Your task to perform on an android device: Open Maps and search for coffee Image 0: 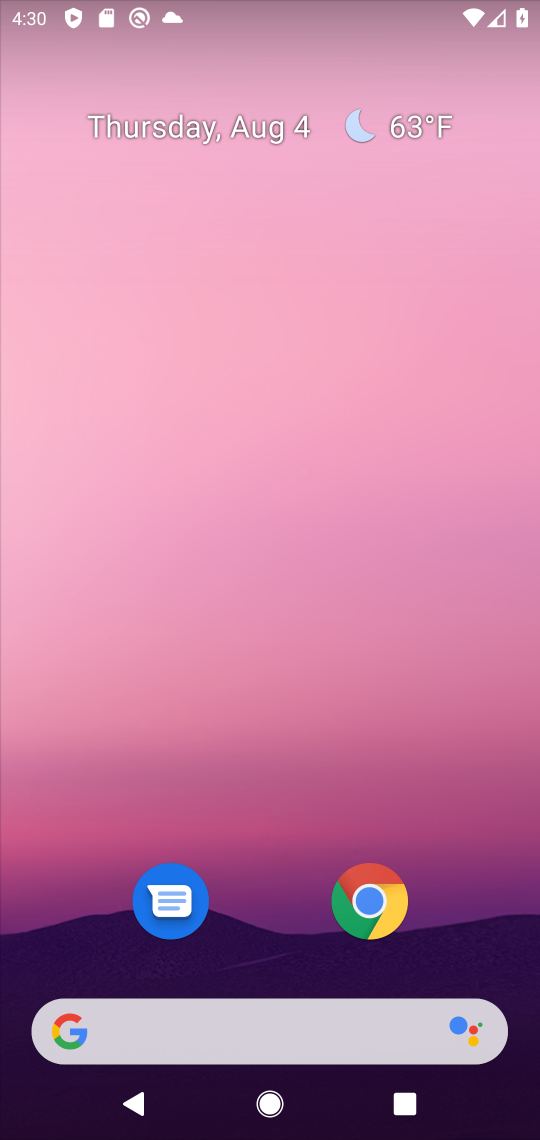
Step 0: drag from (262, 851) to (259, 398)
Your task to perform on an android device: Open Maps and search for coffee Image 1: 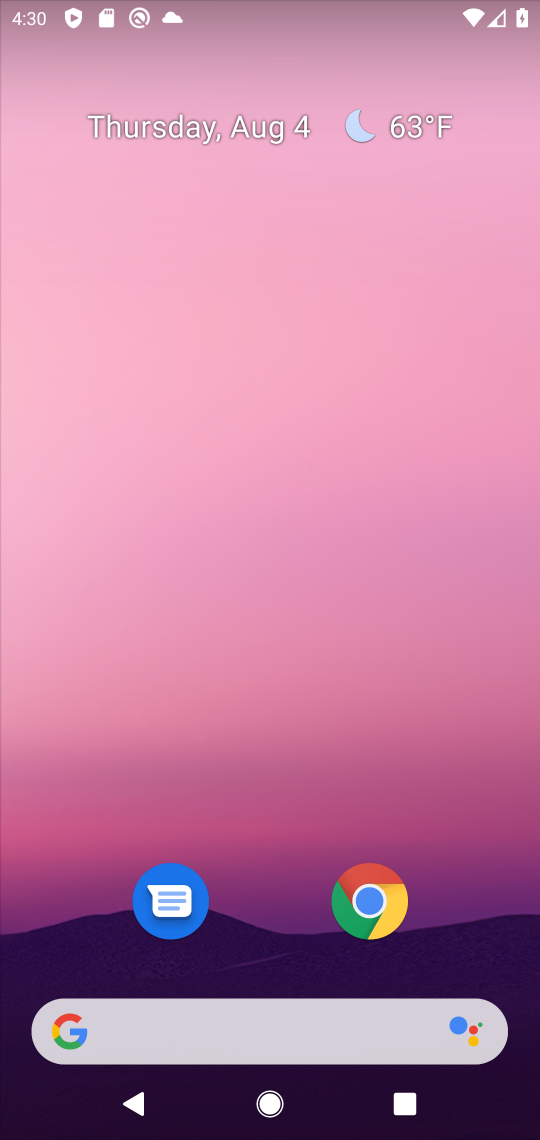
Step 1: drag from (265, 837) to (301, 261)
Your task to perform on an android device: Open Maps and search for coffee Image 2: 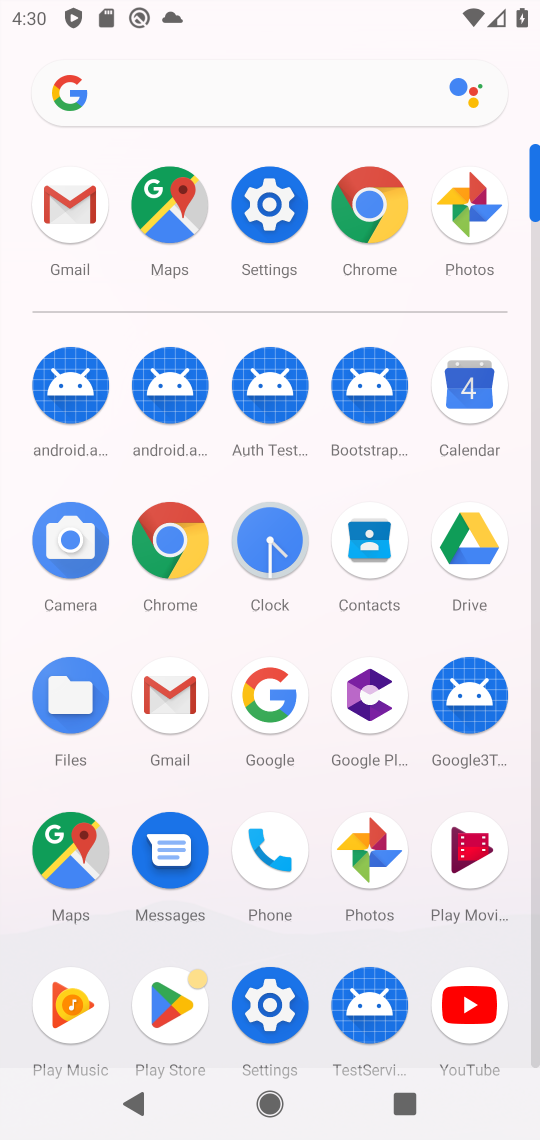
Step 2: click (166, 191)
Your task to perform on an android device: Open Maps and search for coffee Image 3: 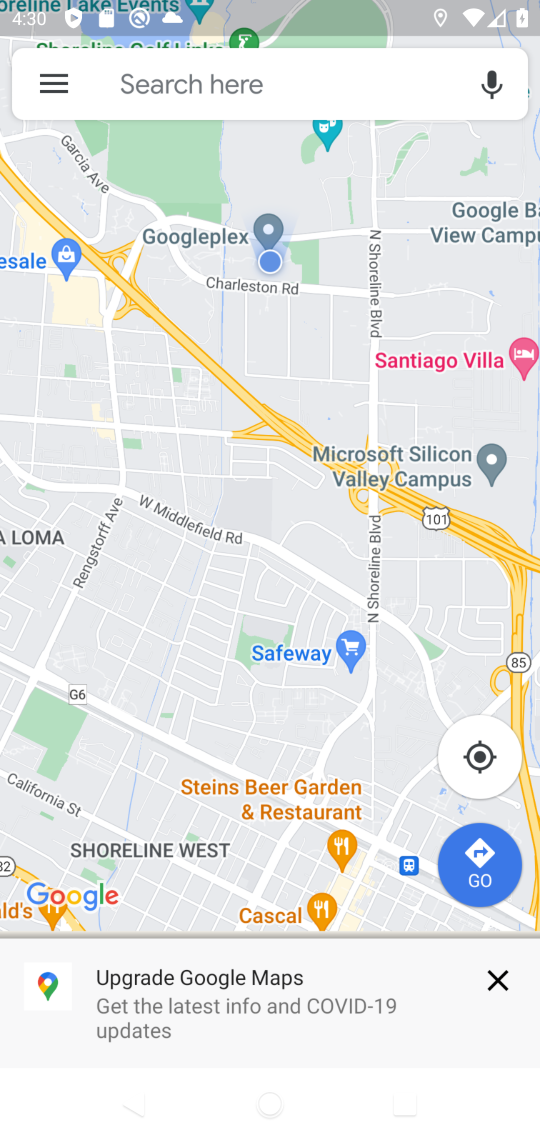
Step 3: click (229, 67)
Your task to perform on an android device: Open Maps and search for coffee Image 4: 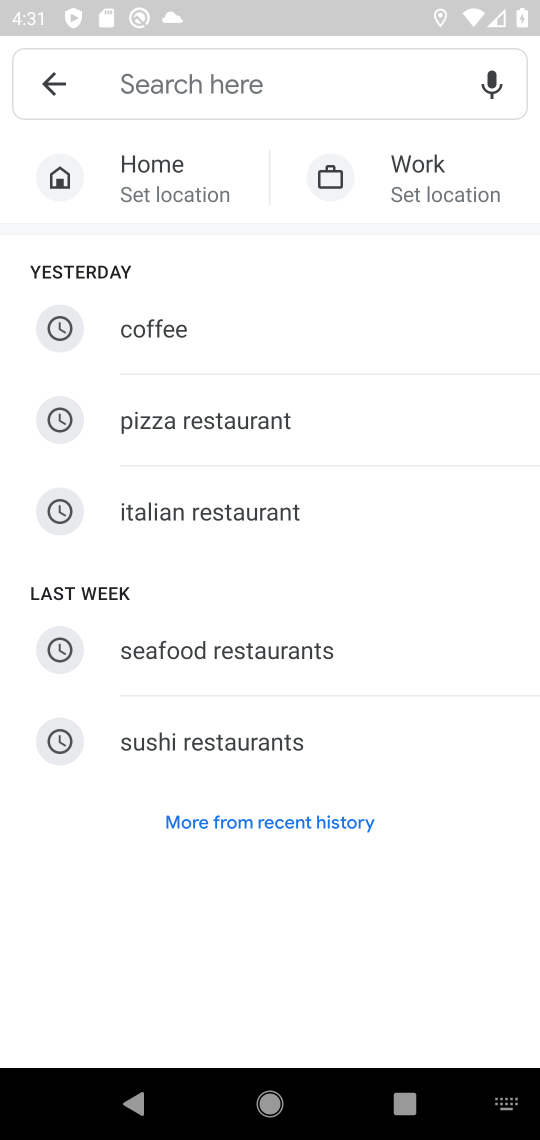
Step 4: type "coffee"
Your task to perform on an android device: Open Maps and search for coffee Image 5: 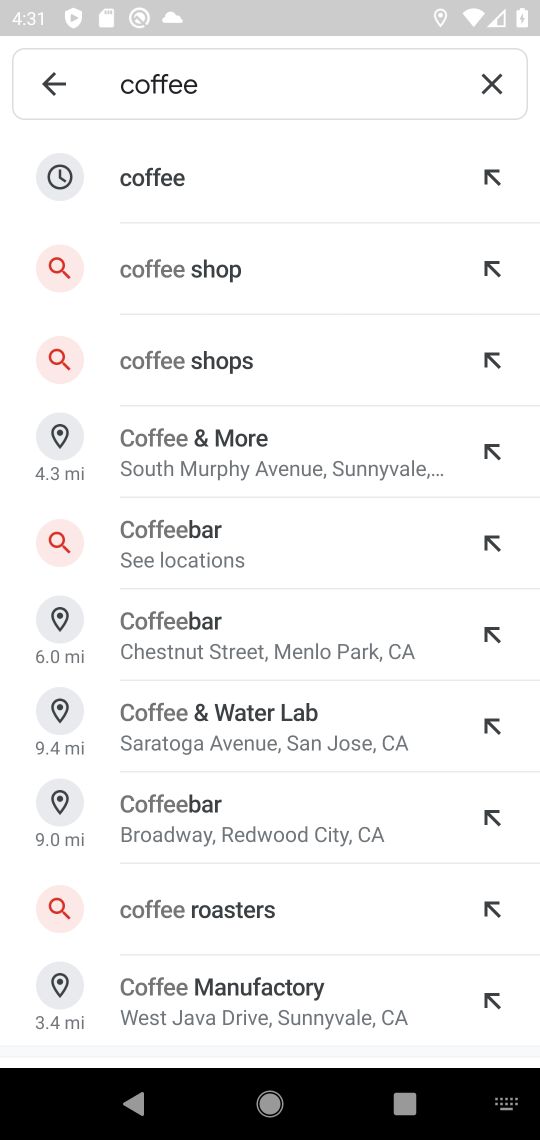
Step 5: click (143, 171)
Your task to perform on an android device: Open Maps and search for coffee Image 6: 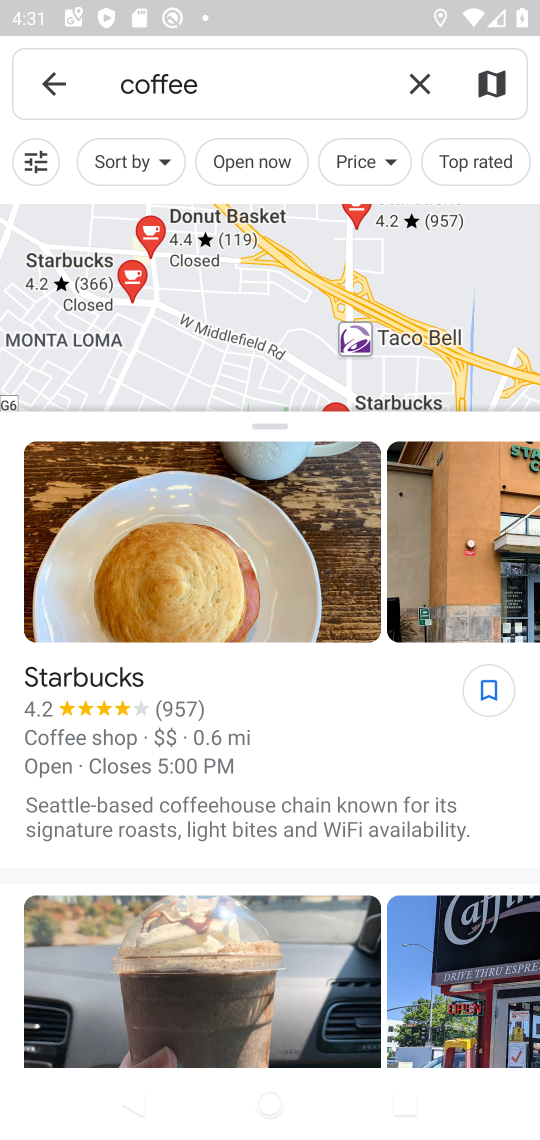
Step 6: task complete